Your task to perform on an android device: Is it going to rain tomorrow? Image 0: 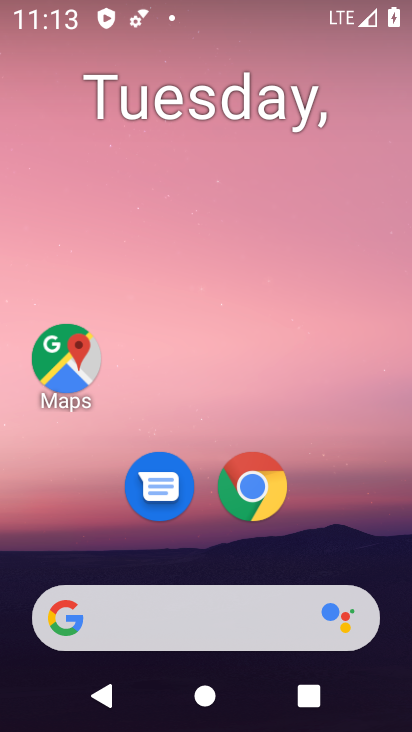
Step 0: click (240, 618)
Your task to perform on an android device: Is it going to rain tomorrow? Image 1: 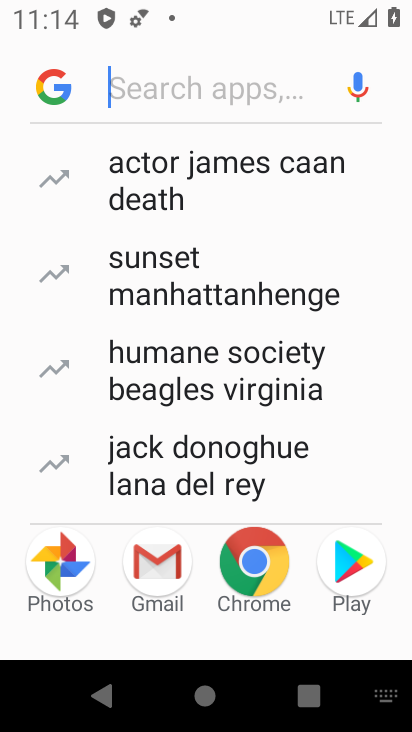
Step 1: type "weather"
Your task to perform on an android device: Is it going to rain tomorrow? Image 2: 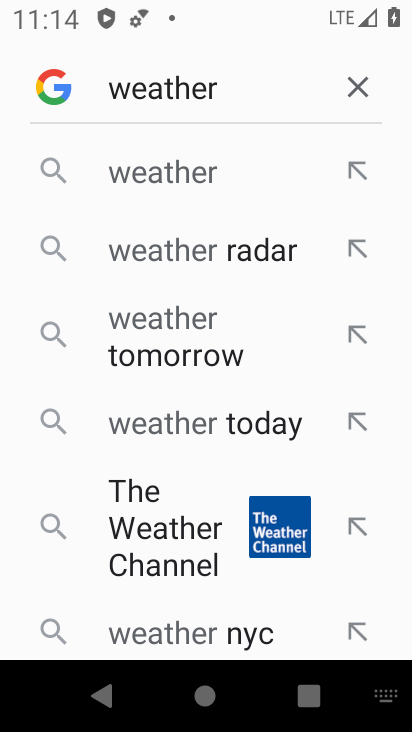
Step 2: click (223, 186)
Your task to perform on an android device: Is it going to rain tomorrow? Image 3: 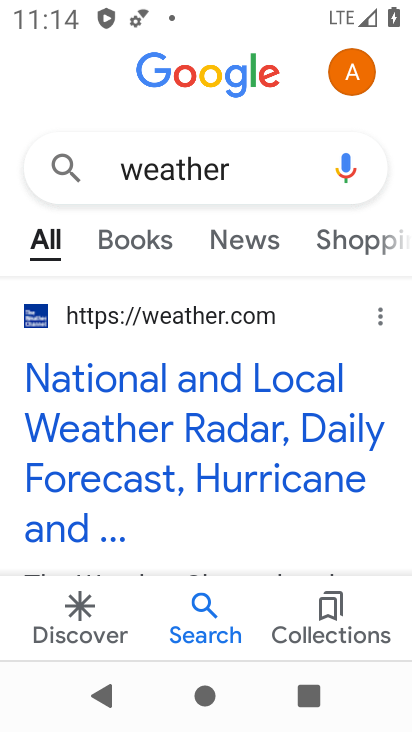
Step 3: task complete